Your task to perform on an android device: Open my contact list Image 0: 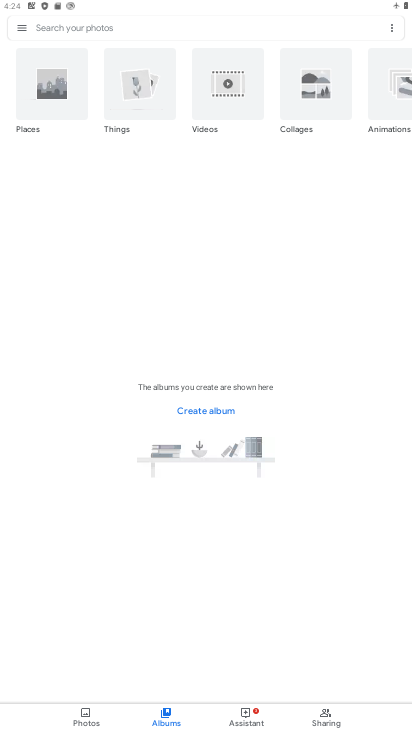
Step 0: press home button
Your task to perform on an android device: Open my contact list Image 1: 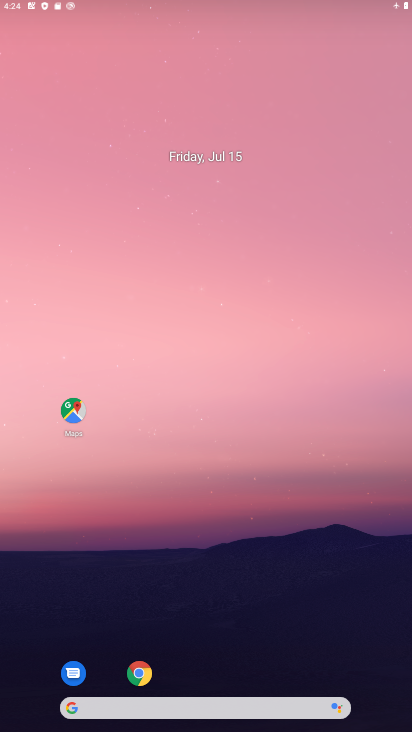
Step 1: drag from (224, 692) to (209, 202)
Your task to perform on an android device: Open my contact list Image 2: 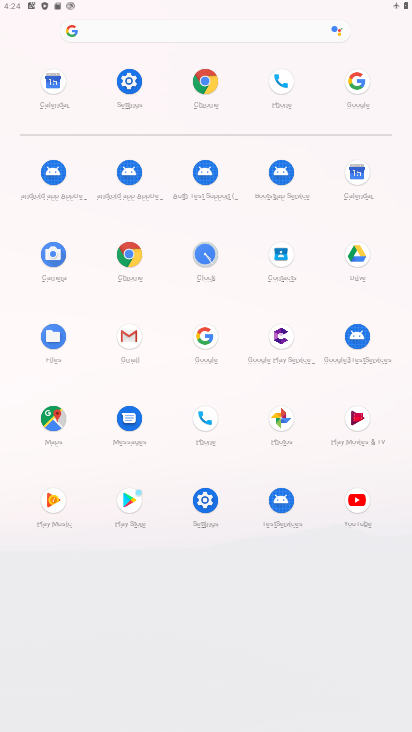
Step 2: click (209, 411)
Your task to perform on an android device: Open my contact list Image 3: 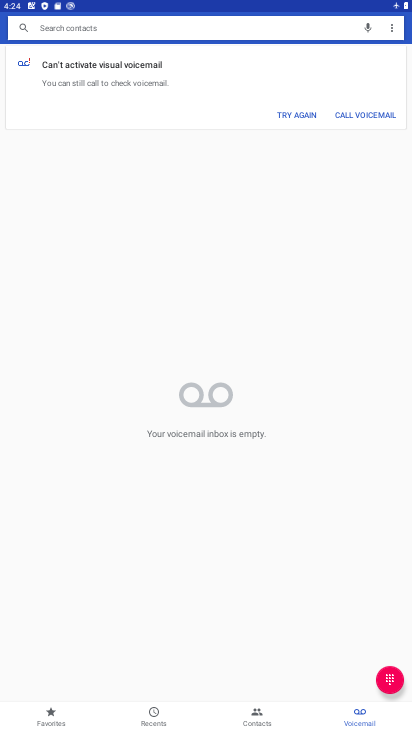
Step 3: click (365, 722)
Your task to perform on an android device: Open my contact list Image 4: 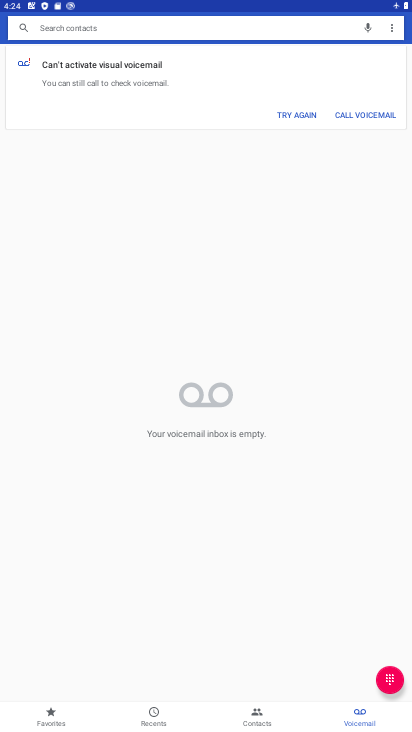
Step 4: click (241, 700)
Your task to perform on an android device: Open my contact list Image 5: 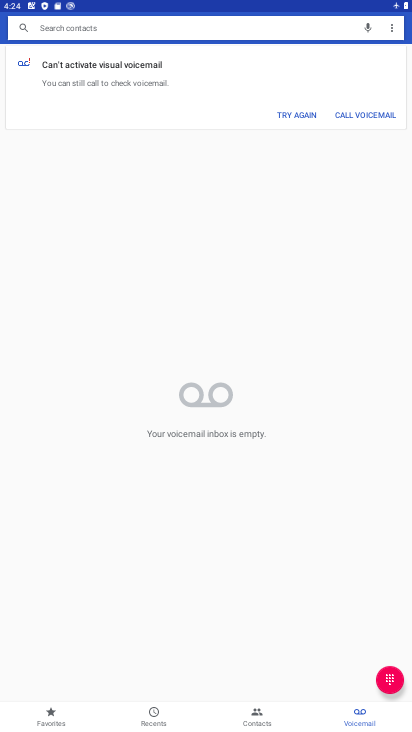
Step 5: click (261, 719)
Your task to perform on an android device: Open my contact list Image 6: 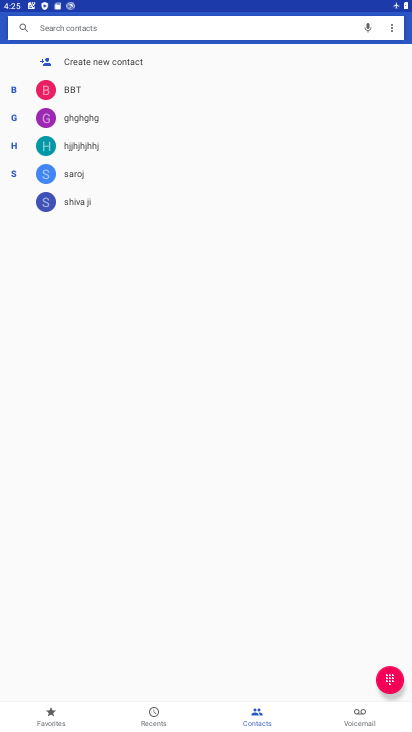
Step 6: task complete